Your task to perform on an android device: Open my contact list Image 0: 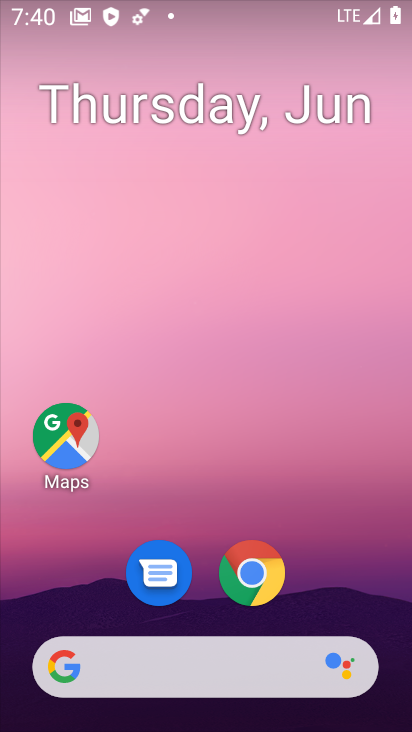
Step 0: drag from (214, 597) to (228, 159)
Your task to perform on an android device: Open my contact list Image 1: 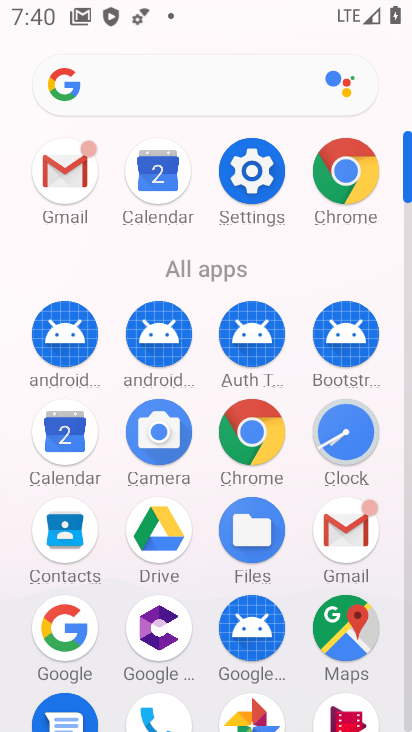
Step 1: click (74, 433)
Your task to perform on an android device: Open my contact list Image 2: 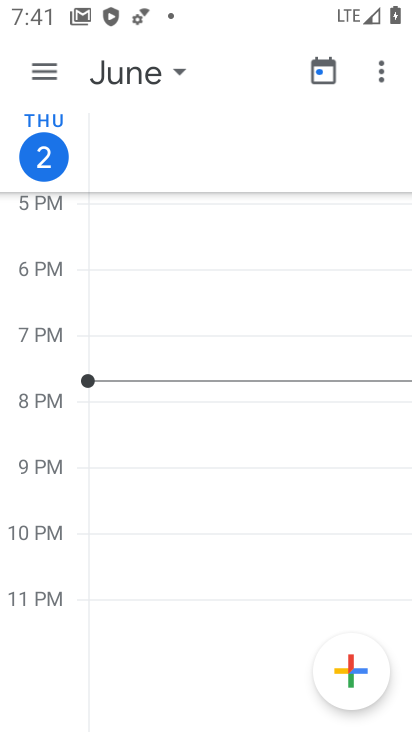
Step 2: press home button
Your task to perform on an android device: Open my contact list Image 3: 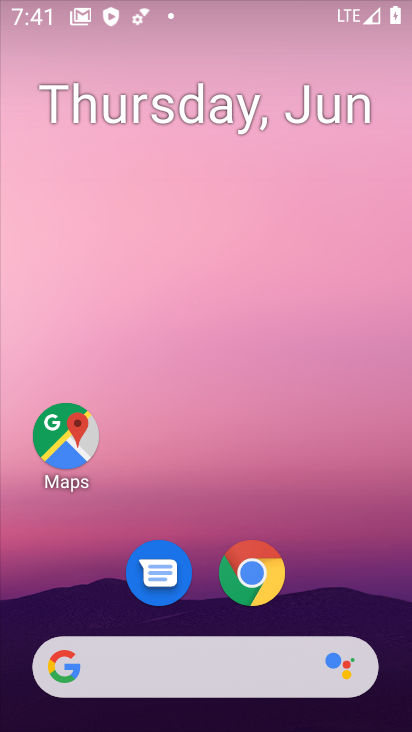
Step 3: drag from (202, 555) to (205, 197)
Your task to perform on an android device: Open my contact list Image 4: 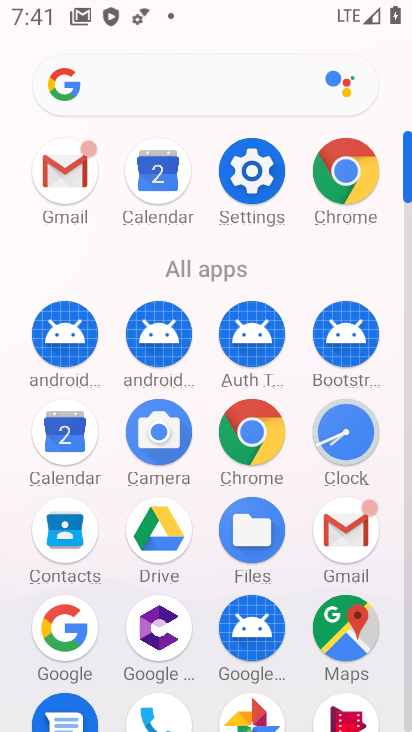
Step 4: drag from (194, 657) to (213, 473)
Your task to perform on an android device: Open my contact list Image 5: 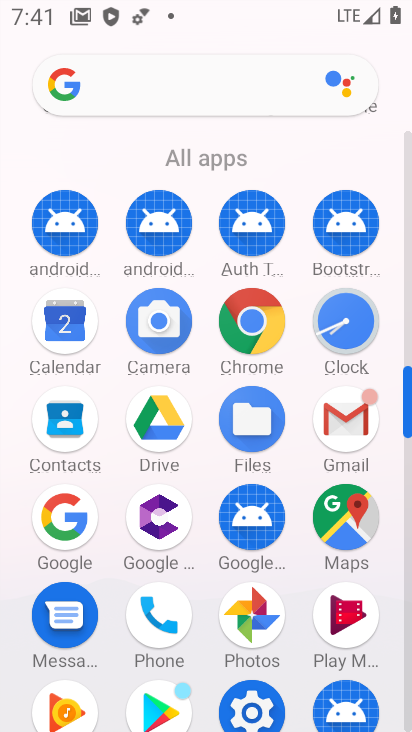
Step 5: click (156, 627)
Your task to perform on an android device: Open my contact list Image 6: 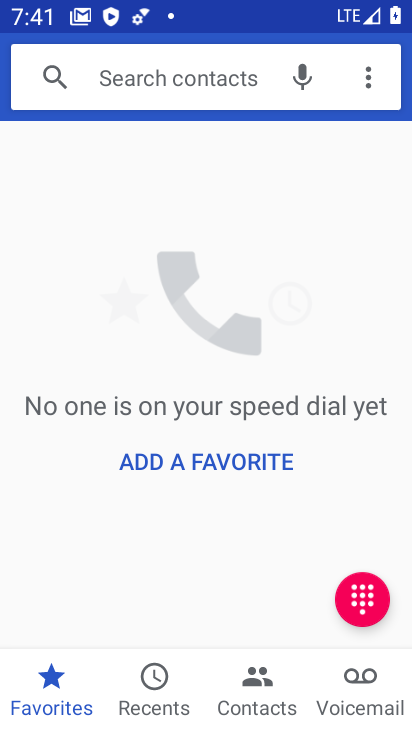
Step 6: click (246, 668)
Your task to perform on an android device: Open my contact list Image 7: 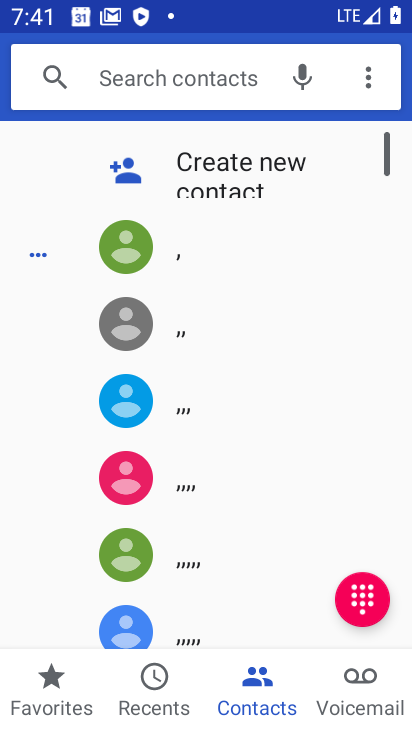
Step 7: task complete